Your task to perform on an android device: see tabs open on other devices in the chrome app Image 0: 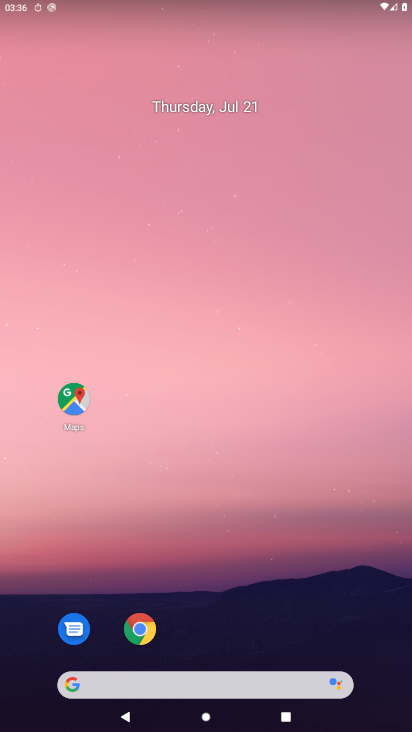
Step 0: click (135, 637)
Your task to perform on an android device: see tabs open on other devices in the chrome app Image 1: 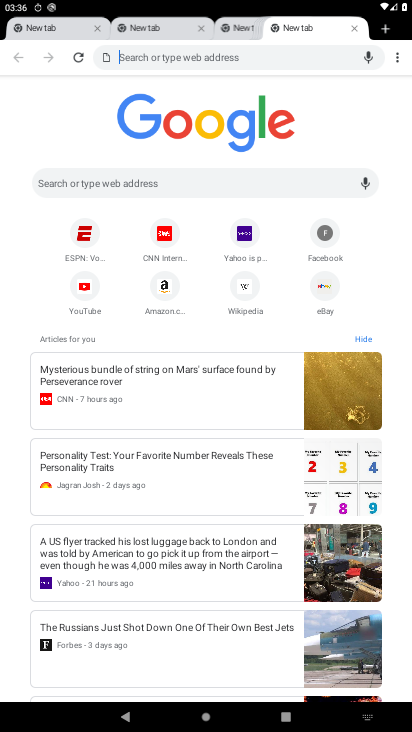
Step 1: click (404, 57)
Your task to perform on an android device: see tabs open on other devices in the chrome app Image 2: 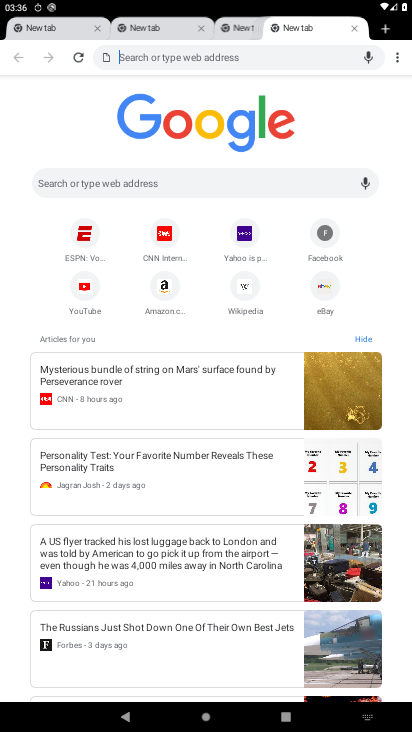
Step 2: click (399, 60)
Your task to perform on an android device: see tabs open on other devices in the chrome app Image 3: 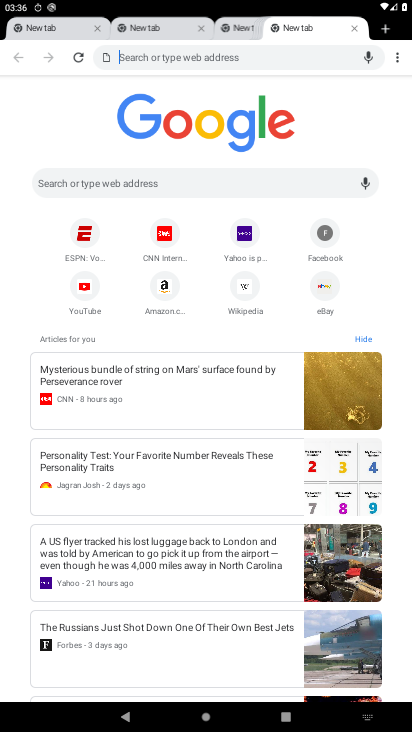
Step 3: task complete